Your task to perform on an android device: Search for vegetarian restaurants on Maps Image 0: 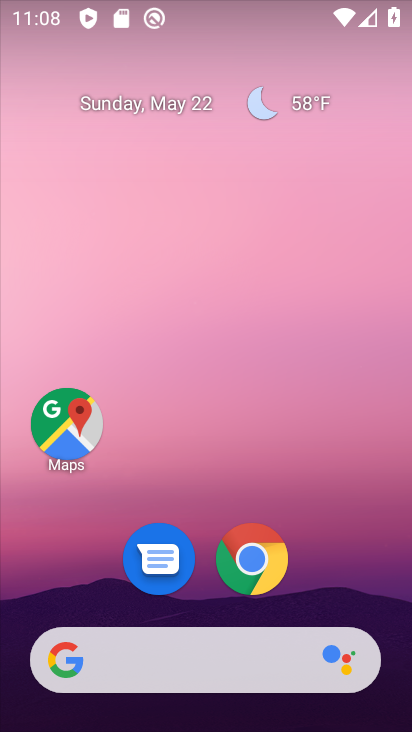
Step 0: click (83, 436)
Your task to perform on an android device: Search for vegetarian restaurants on Maps Image 1: 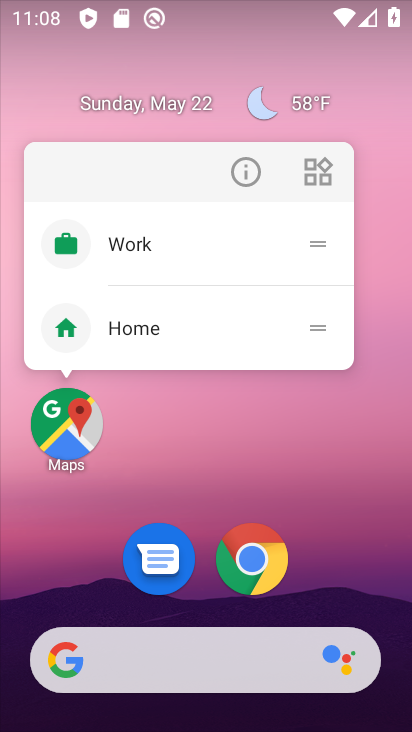
Step 1: click (62, 433)
Your task to perform on an android device: Search for vegetarian restaurants on Maps Image 2: 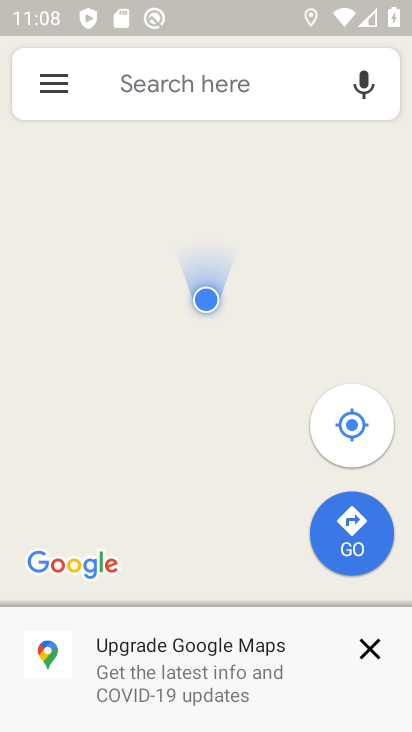
Step 2: click (227, 83)
Your task to perform on an android device: Search for vegetarian restaurants on Maps Image 3: 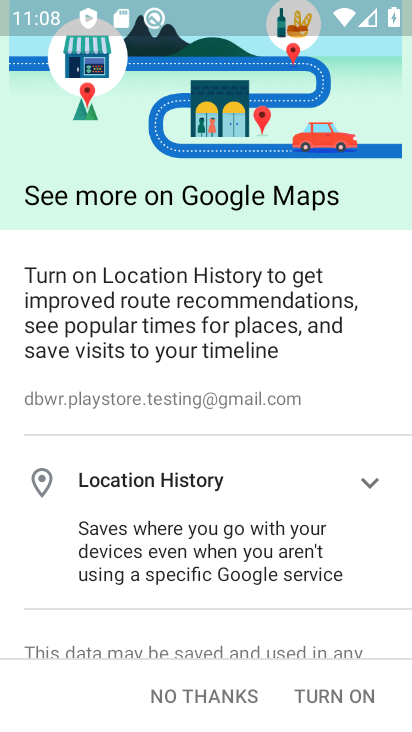
Step 3: click (344, 691)
Your task to perform on an android device: Search for vegetarian restaurants on Maps Image 4: 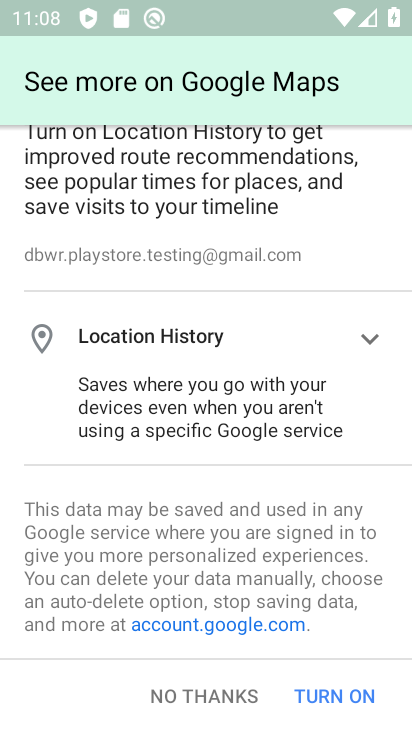
Step 4: click (344, 691)
Your task to perform on an android device: Search for vegetarian restaurants on Maps Image 5: 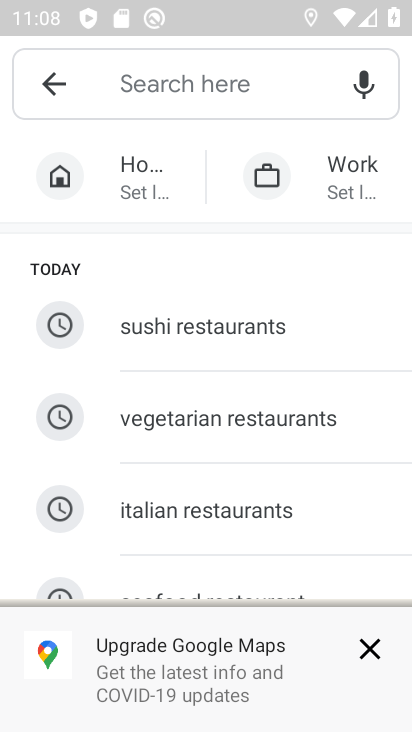
Step 5: click (223, 428)
Your task to perform on an android device: Search for vegetarian restaurants on Maps Image 6: 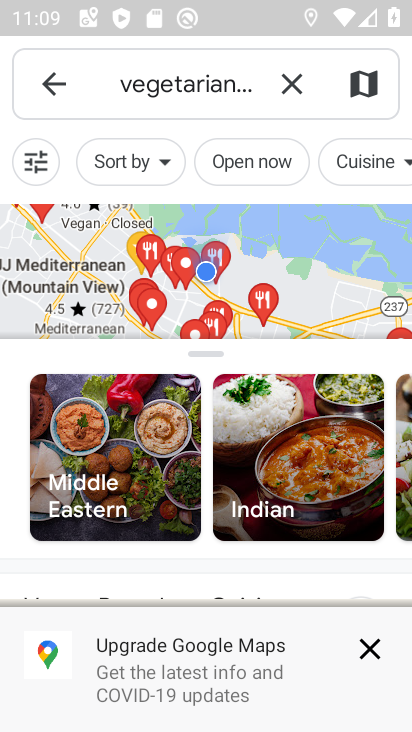
Step 6: task complete